Your task to perform on an android device: Set the phone to "Do not disturb". Image 0: 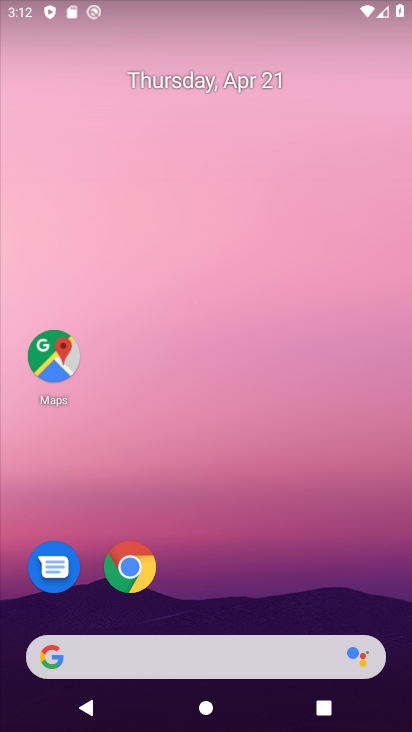
Step 0: drag from (319, 561) to (329, 64)
Your task to perform on an android device: Set the phone to "Do not disturb". Image 1: 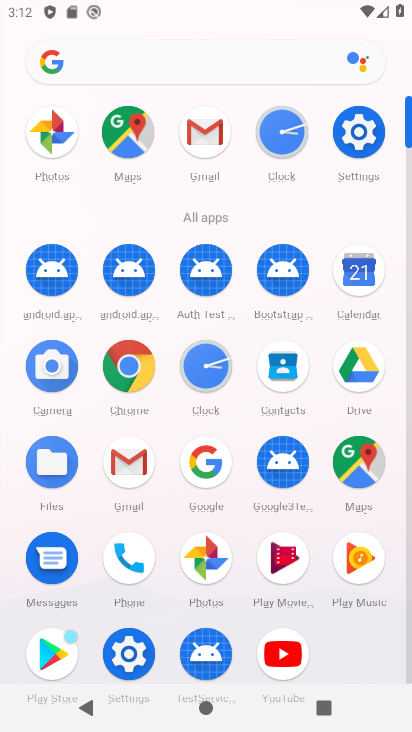
Step 1: click (121, 650)
Your task to perform on an android device: Set the phone to "Do not disturb". Image 2: 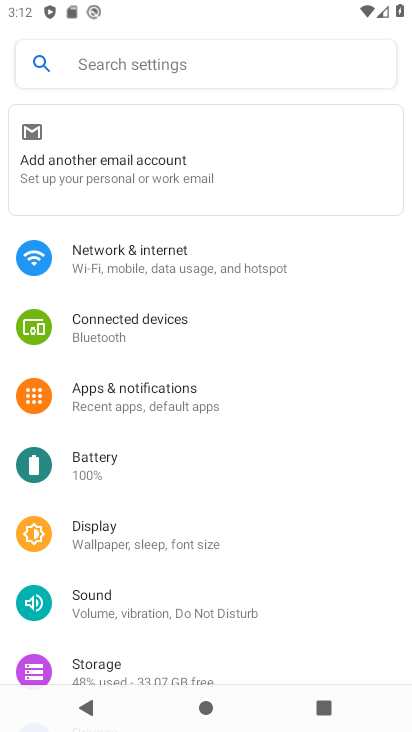
Step 2: click (171, 605)
Your task to perform on an android device: Set the phone to "Do not disturb". Image 3: 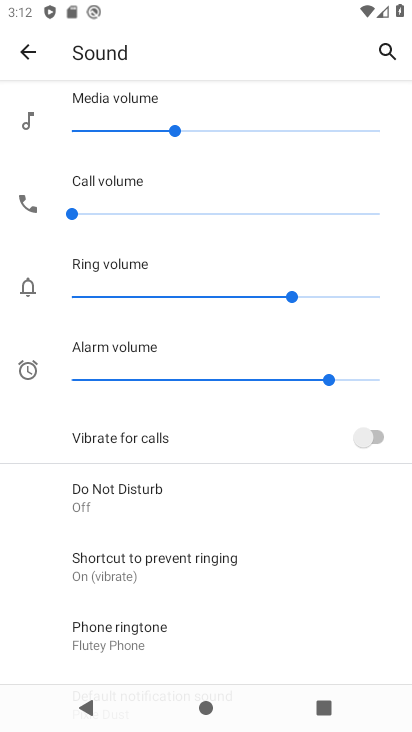
Step 3: click (133, 502)
Your task to perform on an android device: Set the phone to "Do not disturb". Image 4: 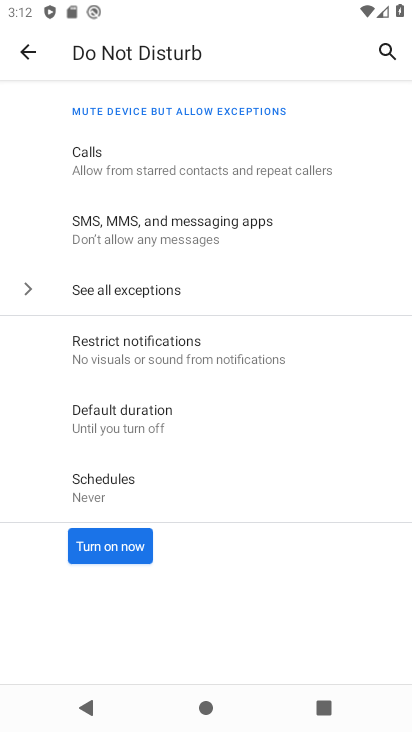
Step 4: click (114, 546)
Your task to perform on an android device: Set the phone to "Do not disturb". Image 5: 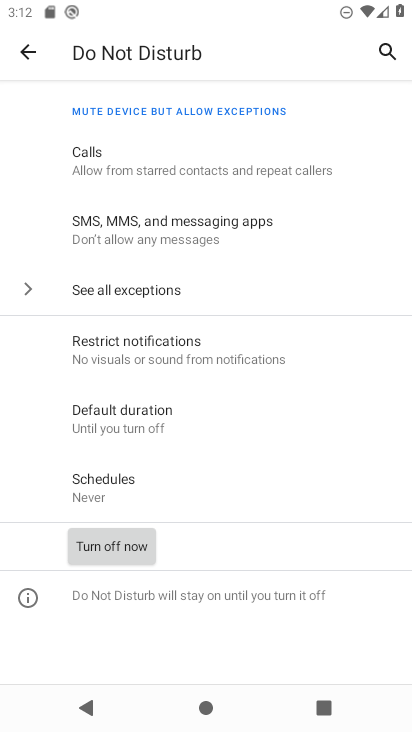
Step 5: task complete